Your task to perform on an android device: Open calendar and show me the first week of next month Image 0: 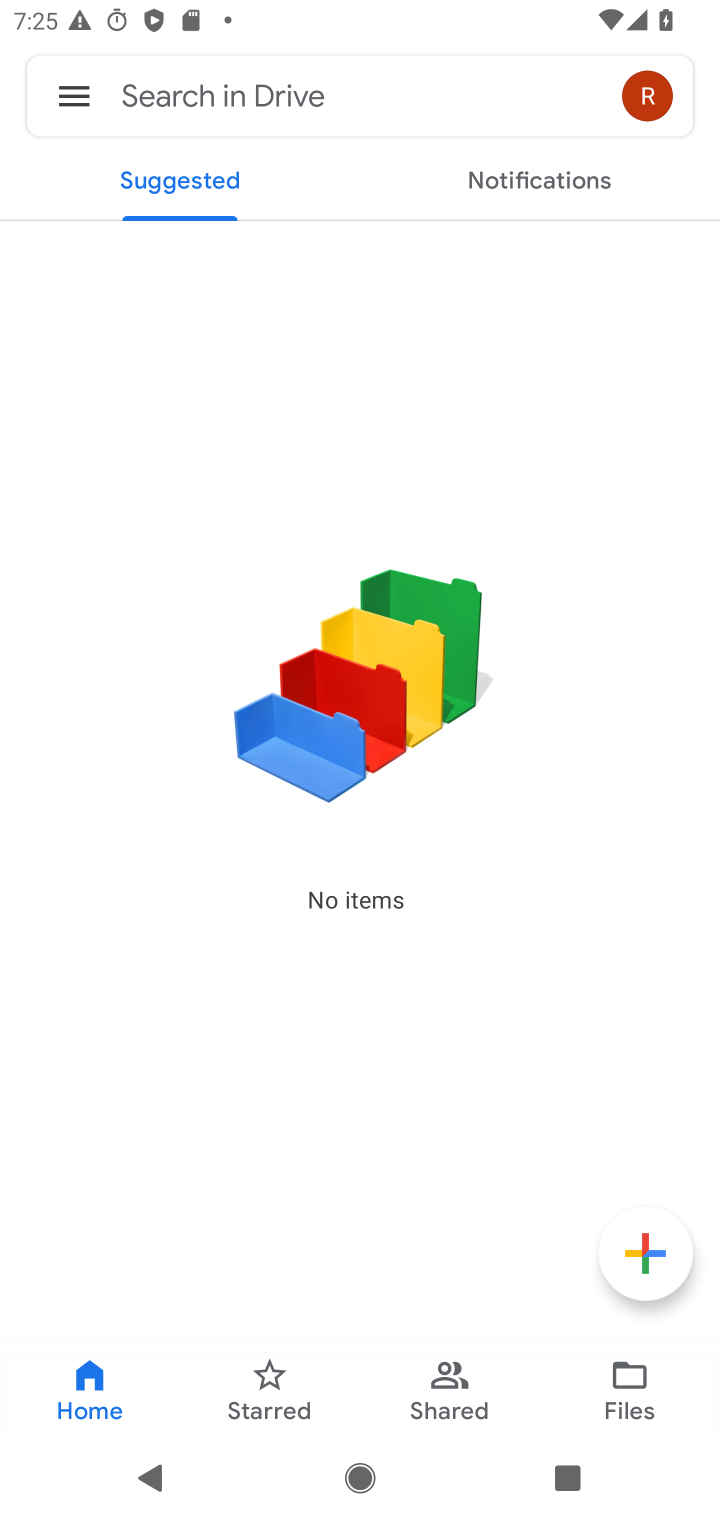
Step 0: press home button
Your task to perform on an android device: Open calendar and show me the first week of next month Image 1: 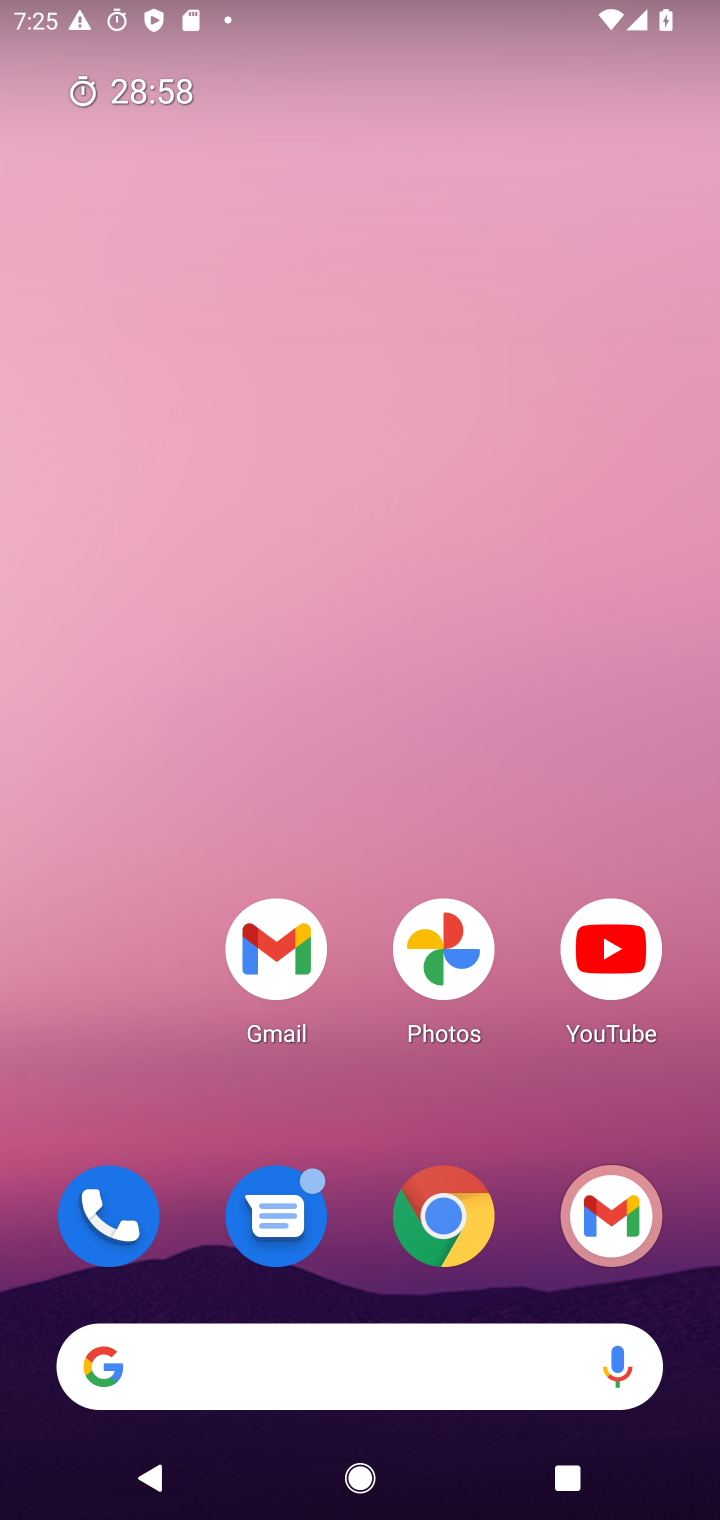
Step 1: drag from (389, 1022) to (389, 125)
Your task to perform on an android device: Open calendar and show me the first week of next month Image 2: 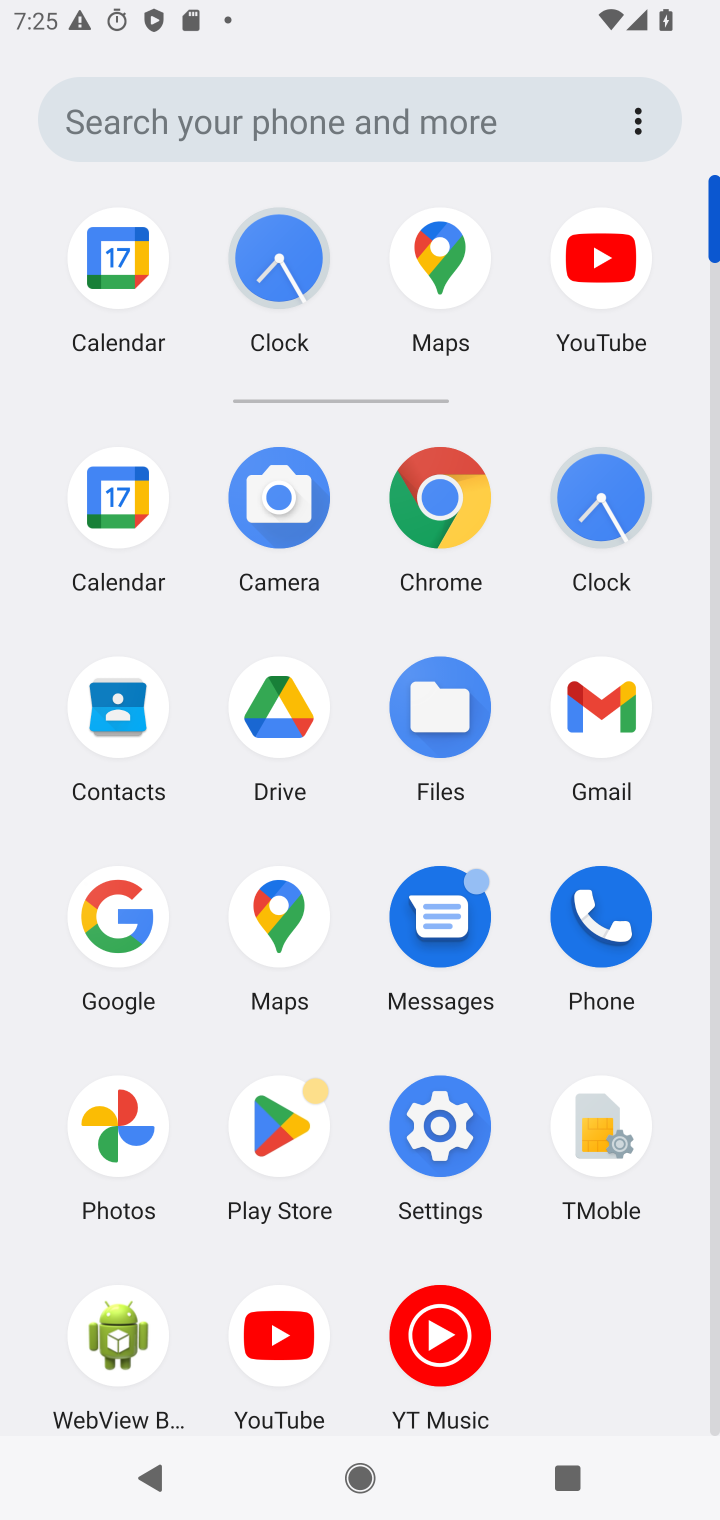
Step 2: click (112, 473)
Your task to perform on an android device: Open calendar and show me the first week of next month Image 3: 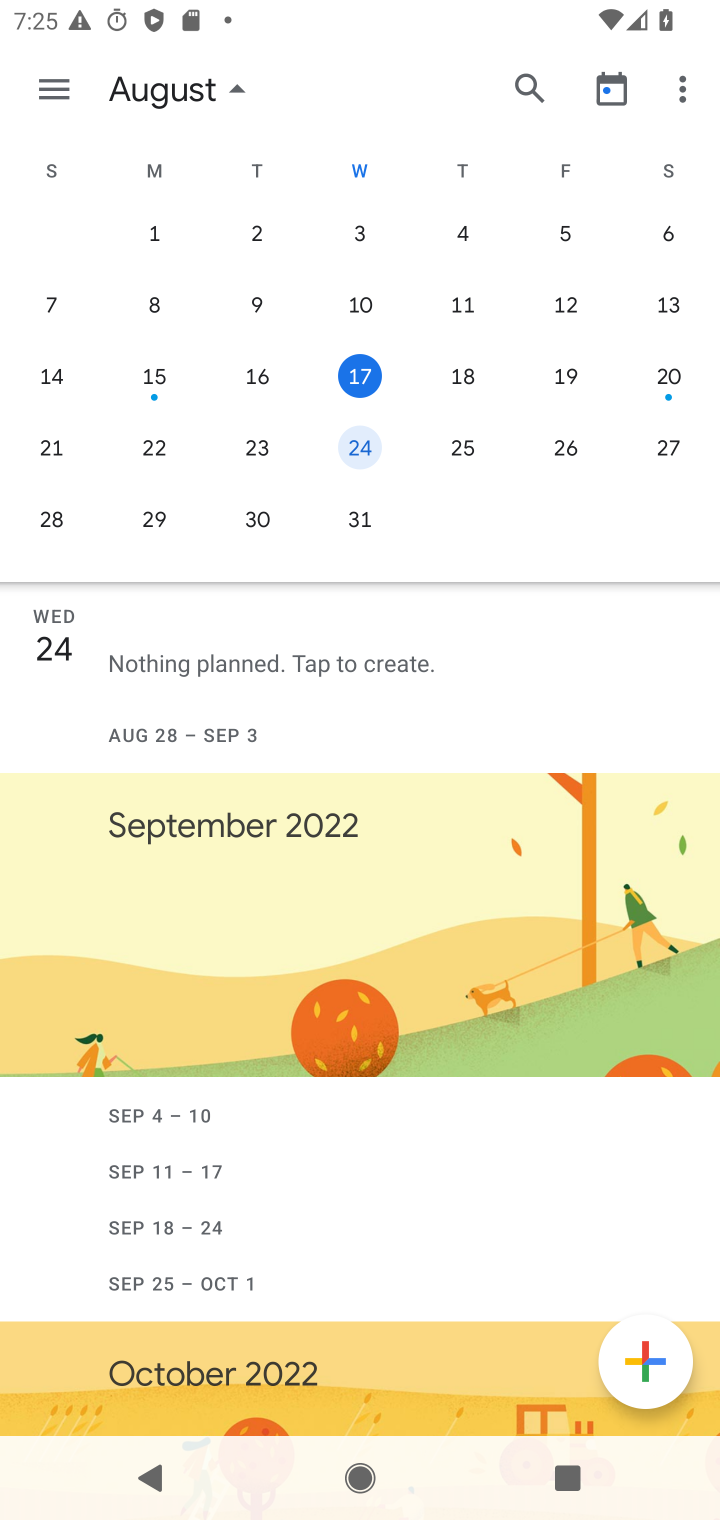
Step 3: drag from (488, 330) to (37, 268)
Your task to perform on an android device: Open calendar and show me the first week of next month Image 4: 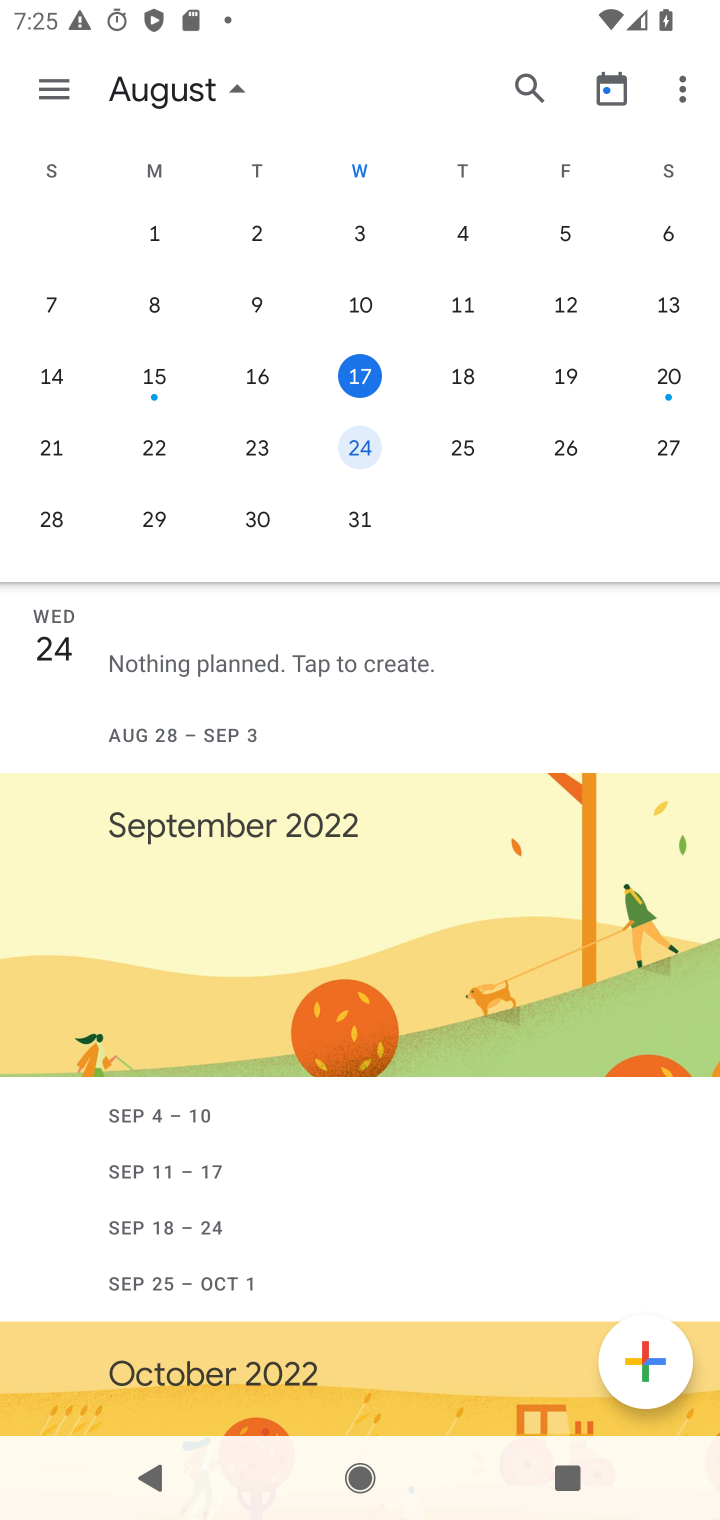
Step 4: click (667, 222)
Your task to perform on an android device: Open calendar and show me the first week of next month Image 5: 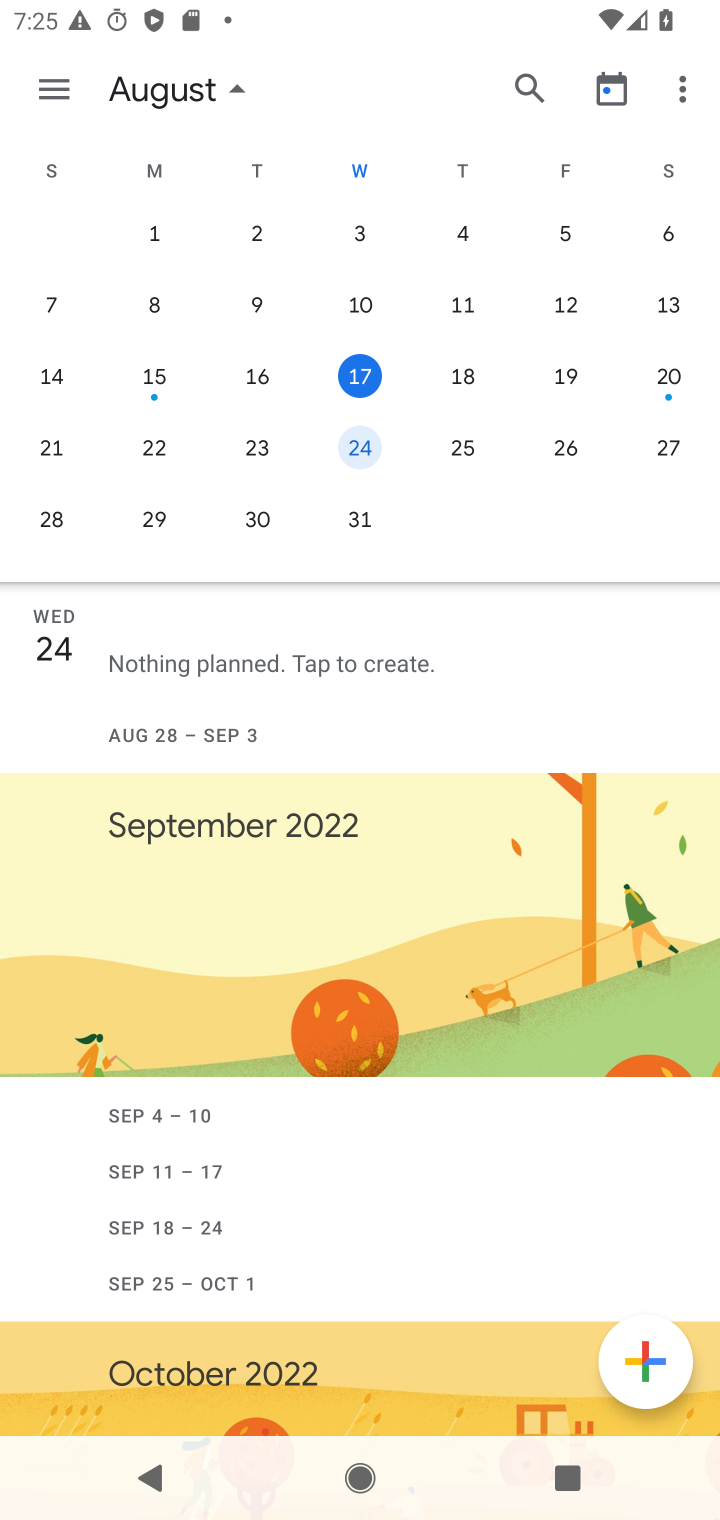
Step 5: click (668, 235)
Your task to perform on an android device: Open calendar and show me the first week of next month Image 6: 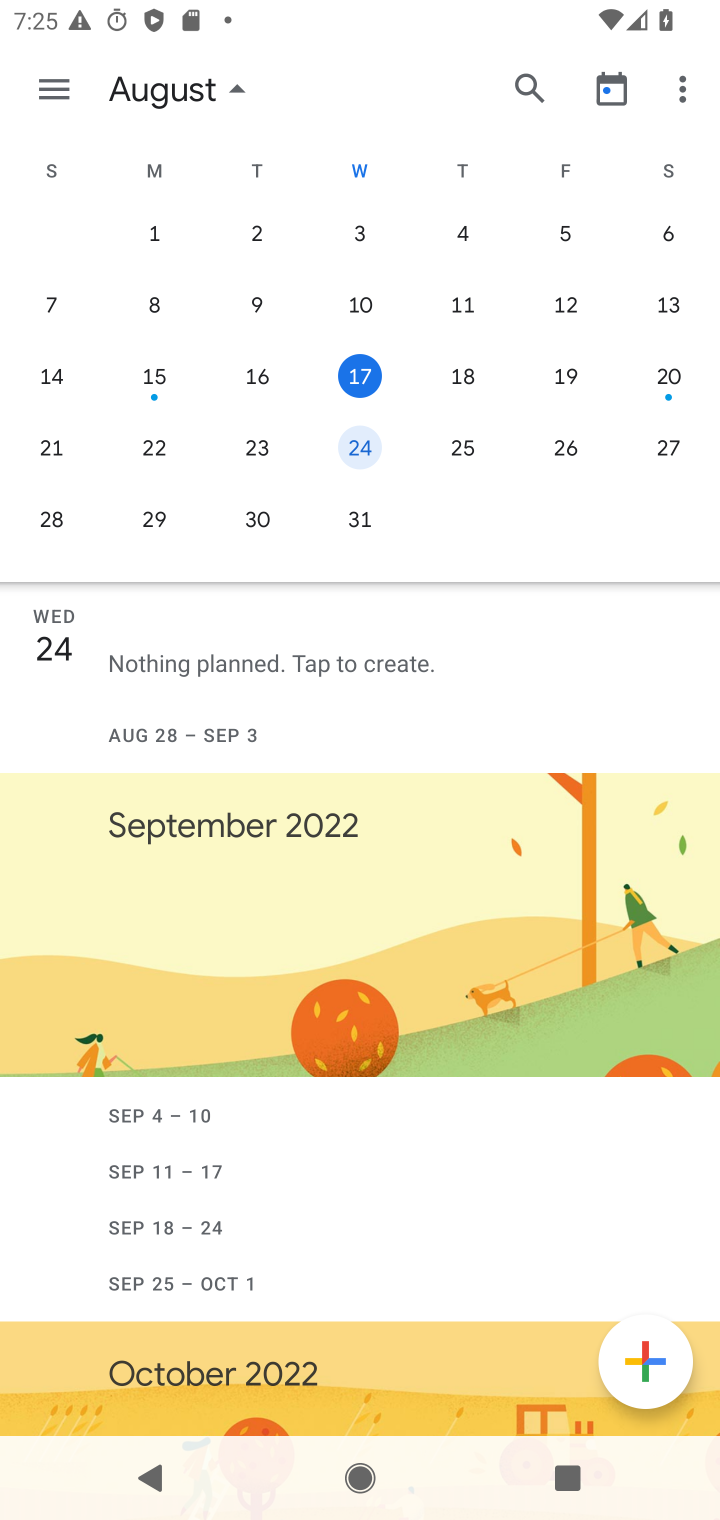
Step 6: click (665, 228)
Your task to perform on an android device: Open calendar and show me the first week of next month Image 7: 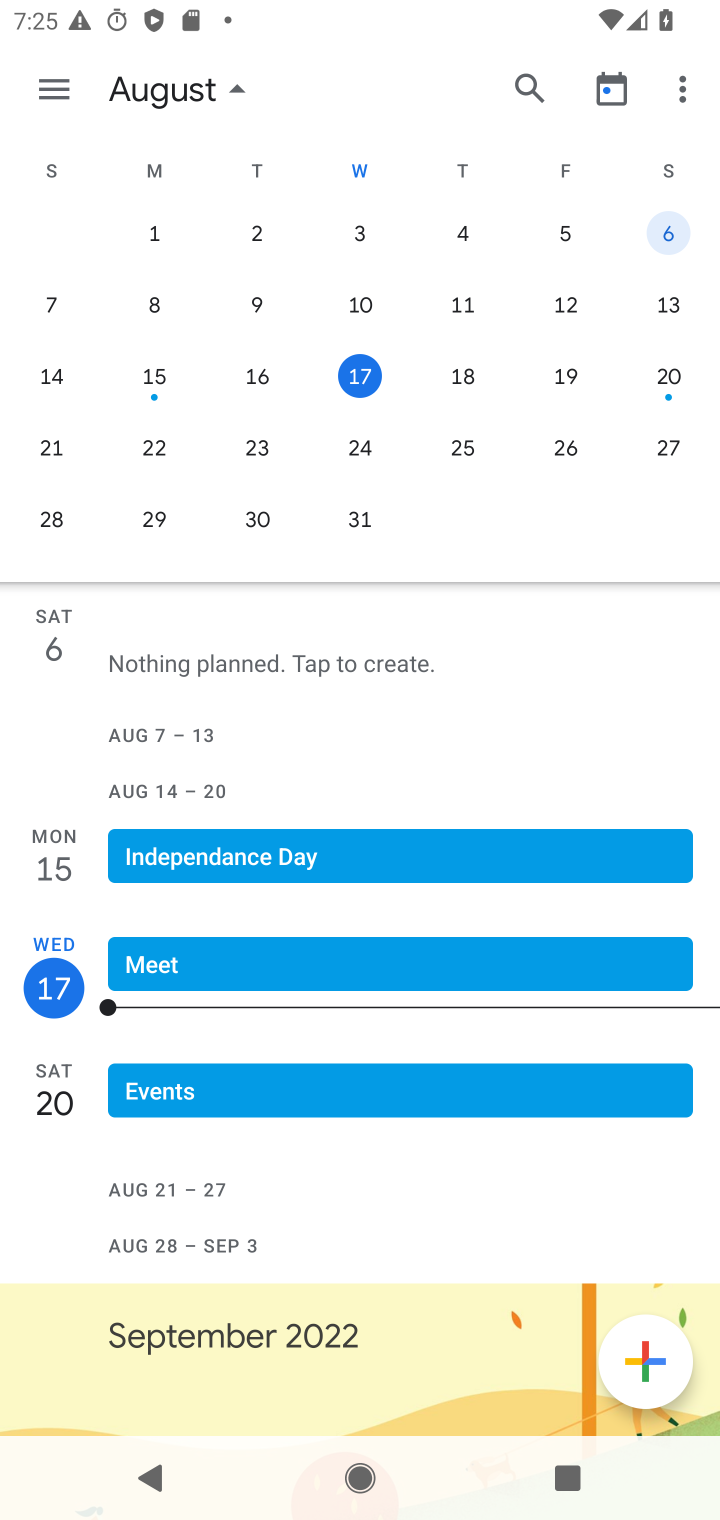
Step 7: task complete